Your task to perform on an android device: Search for pizza restaurants on Maps Image 0: 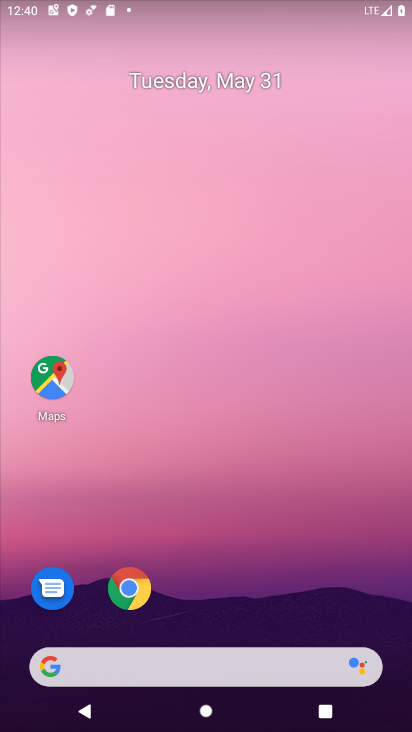
Step 0: click (52, 372)
Your task to perform on an android device: Search for pizza restaurants on Maps Image 1: 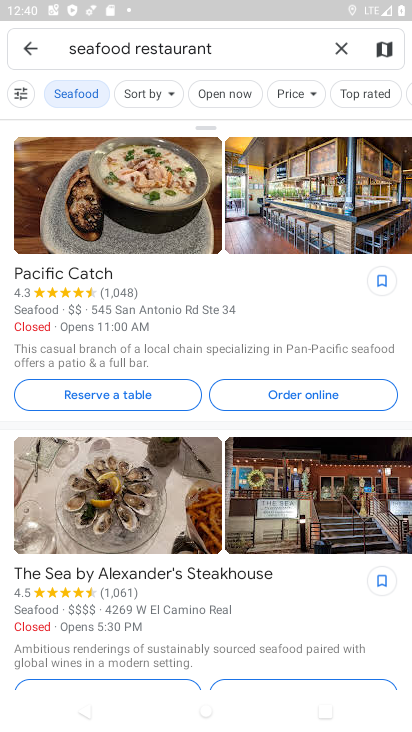
Step 1: click (344, 44)
Your task to perform on an android device: Search for pizza restaurants on Maps Image 2: 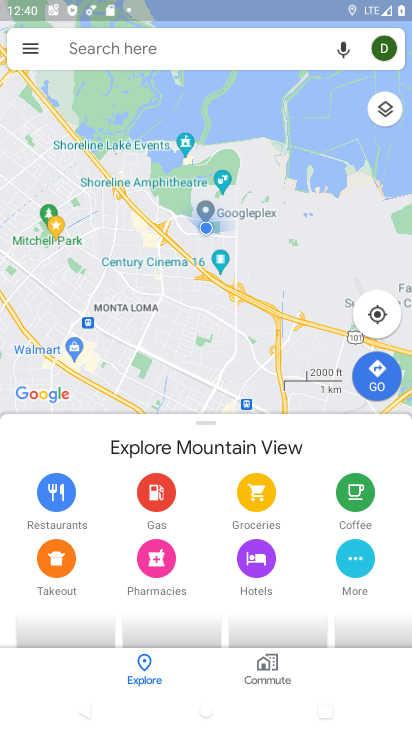
Step 2: click (148, 45)
Your task to perform on an android device: Search for pizza restaurants on Maps Image 3: 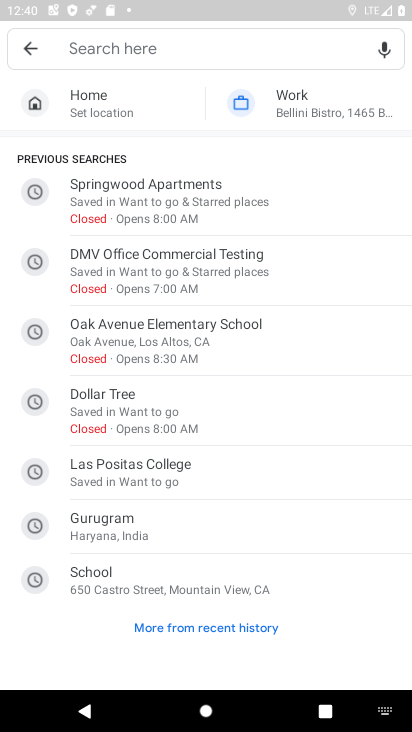
Step 3: type "pizza"
Your task to perform on an android device: Search for pizza restaurants on Maps Image 4: 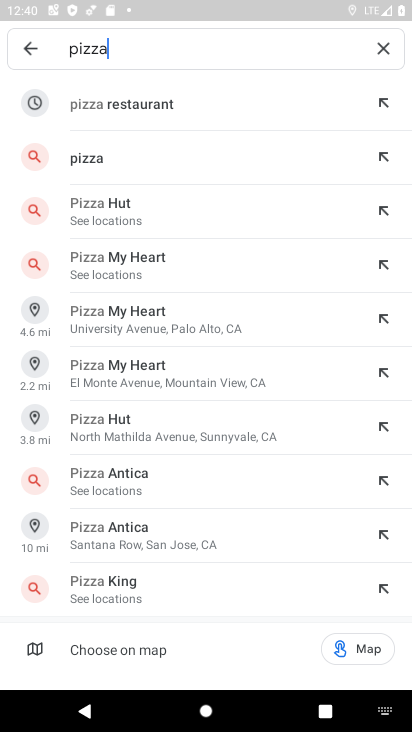
Step 4: click (112, 103)
Your task to perform on an android device: Search for pizza restaurants on Maps Image 5: 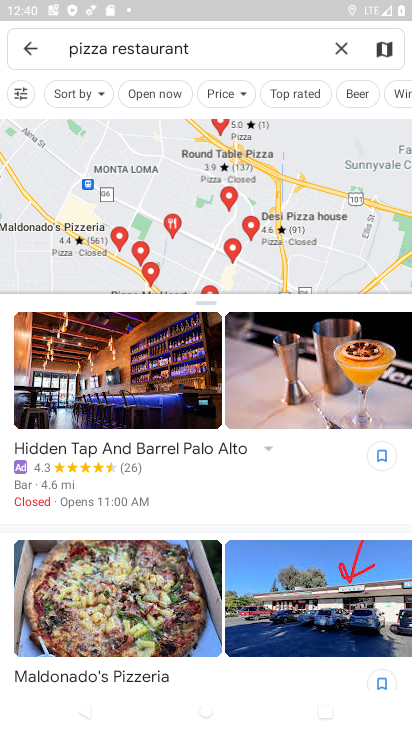
Step 5: task complete